Your task to perform on an android device: Clear the shopping cart on costco.com. Image 0: 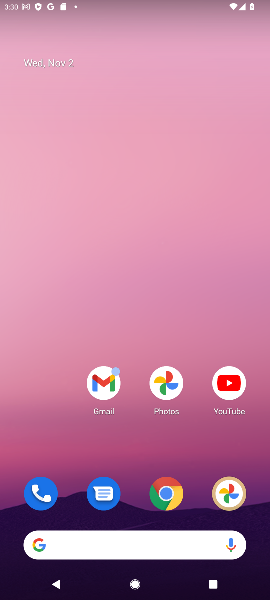
Step 0: drag from (74, 528) to (167, 208)
Your task to perform on an android device: Clear the shopping cart on costco.com. Image 1: 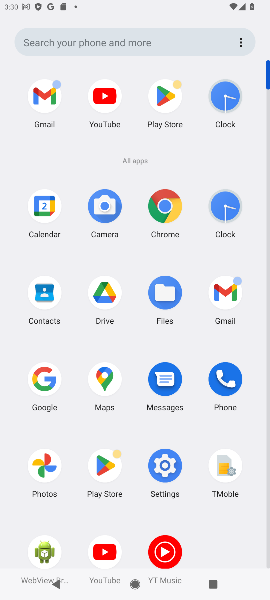
Step 1: click (45, 369)
Your task to perform on an android device: Clear the shopping cart on costco.com. Image 2: 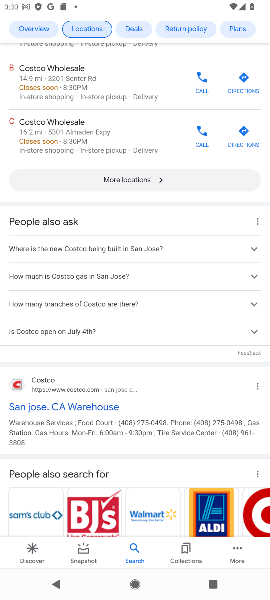
Step 2: drag from (153, 88) to (79, 463)
Your task to perform on an android device: Clear the shopping cart on costco.com. Image 3: 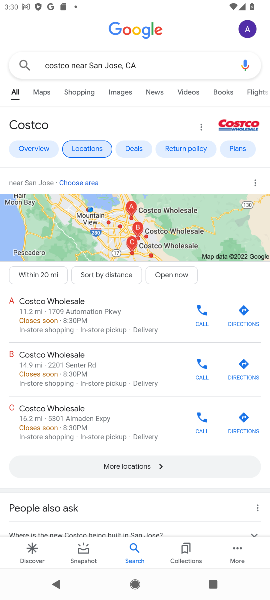
Step 3: click (113, 59)
Your task to perform on an android device: Clear the shopping cart on costco.com. Image 4: 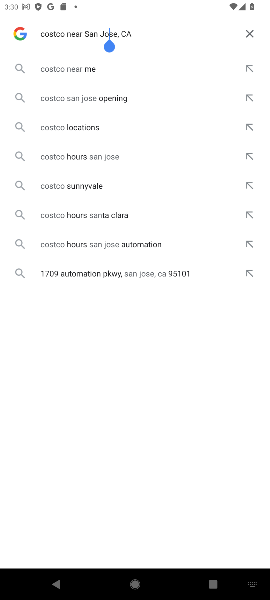
Step 4: click (245, 29)
Your task to perform on an android device: Clear the shopping cart on costco.com. Image 5: 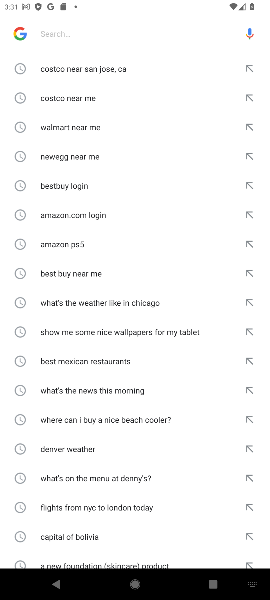
Step 5: click (76, 96)
Your task to perform on an android device: Clear the shopping cart on costco.com. Image 6: 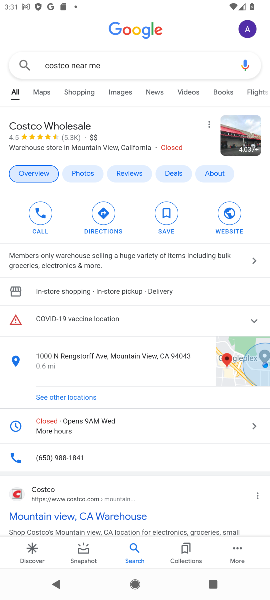
Step 6: click (14, 494)
Your task to perform on an android device: Clear the shopping cart on costco.com. Image 7: 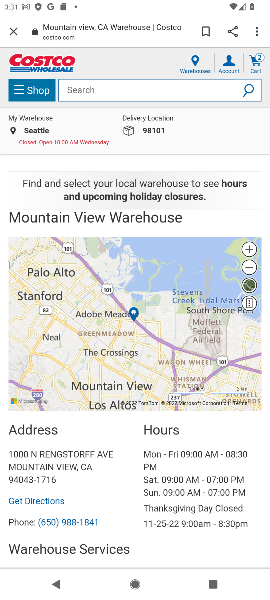
Step 7: click (112, 90)
Your task to perform on an android device: Clear the shopping cart on costco.com. Image 8: 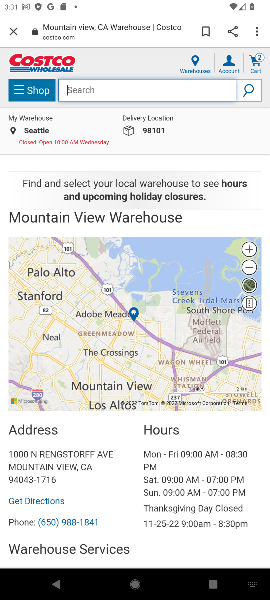
Step 8: click (253, 60)
Your task to perform on an android device: Clear the shopping cart on costco.com. Image 9: 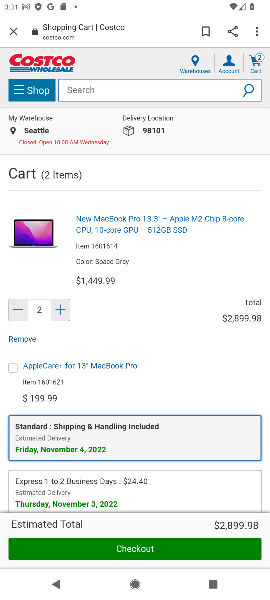
Step 9: click (132, 418)
Your task to perform on an android device: Clear the shopping cart on costco.com. Image 10: 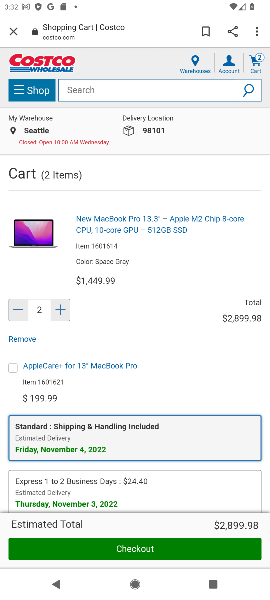
Step 10: click (14, 309)
Your task to perform on an android device: Clear the shopping cart on costco.com. Image 11: 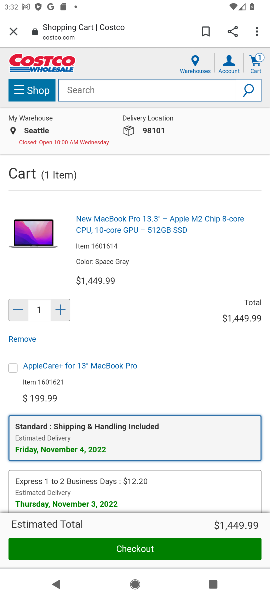
Step 11: click (14, 309)
Your task to perform on an android device: Clear the shopping cart on costco.com. Image 12: 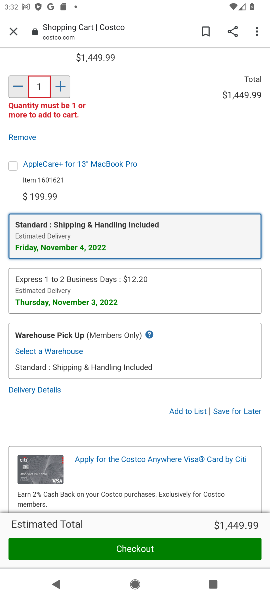
Step 12: drag from (137, 460) to (147, 491)
Your task to perform on an android device: Clear the shopping cart on costco.com. Image 13: 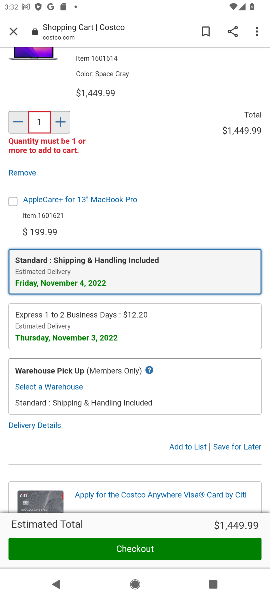
Step 13: drag from (142, 174) to (144, 359)
Your task to perform on an android device: Clear the shopping cart on costco.com. Image 14: 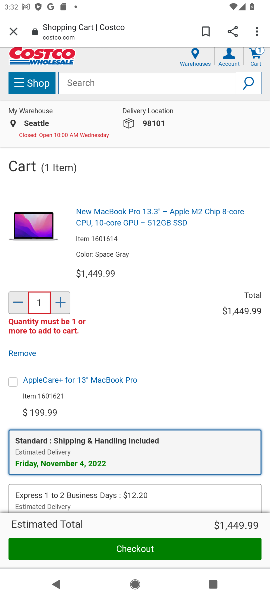
Step 14: drag from (65, 203) to (61, 361)
Your task to perform on an android device: Clear the shopping cart on costco.com. Image 15: 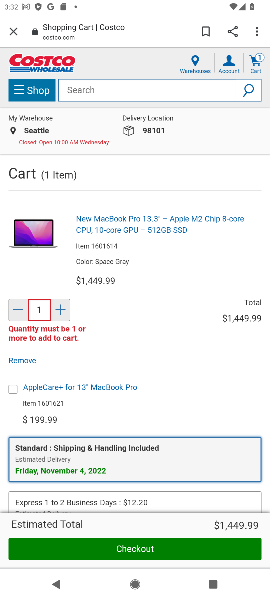
Step 15: click (18, 310)
Your task to perform on an android device: Clear the shopping cart on costco.com. Image 16: 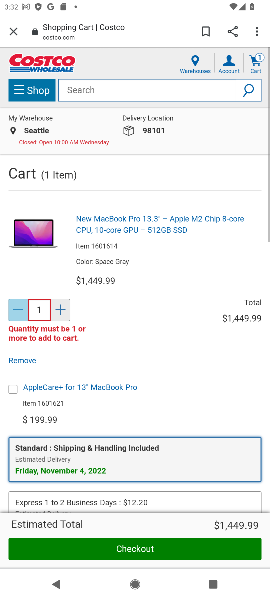
Step 16: click (18, 310)
Your task to perform on an android device: Clear the shopping cart on costco.com. Image 17: 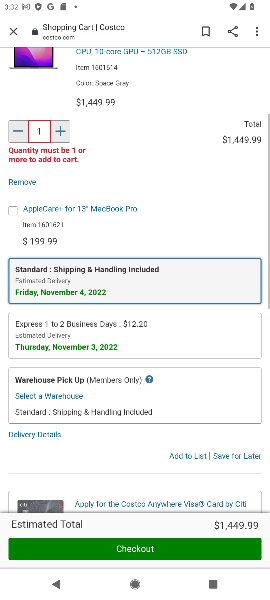
Step 17: click (18, 310)
Your task to perform on an android device: Clear the shopping cart on costco.com. Image 18: 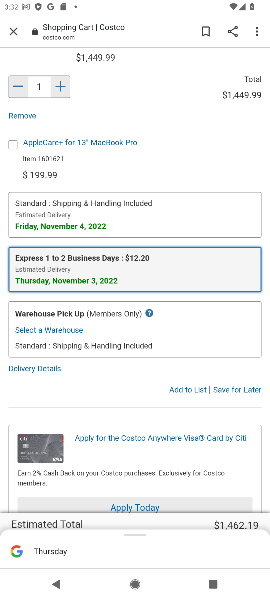
Step 18: click (16, 88)
Your task to perform on an android device: Clear the shopping cart on costco.com. Image 19: 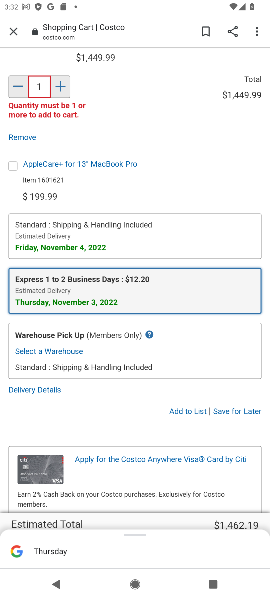
Step 19: drag from (143, 132) to (127, 406)
Your task to perform on an android device: Clear the shopping cart on costco.com. Image 20: 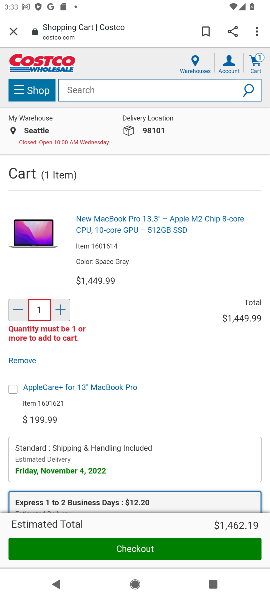
Step 20: click (16, 305)
Your task to perform on an android device: Clear the shopping cart on costco.com. Image 21: 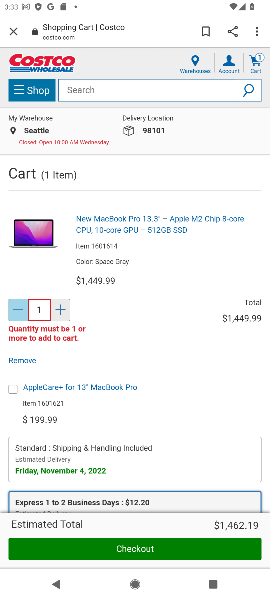
Step 21: click (16, 305)
Your task to perform on an android device: Clear the shopping cart on costco.com. Image 22: 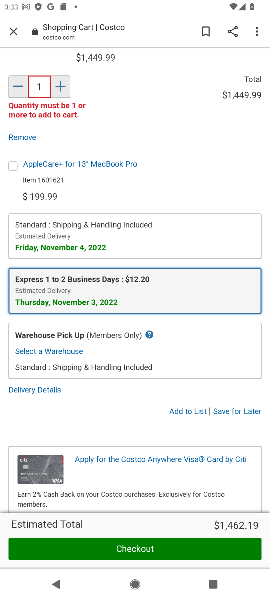
Step 22: task complete